Your task to perform on an android device: Open Chrome and go to the settings page Image 0: 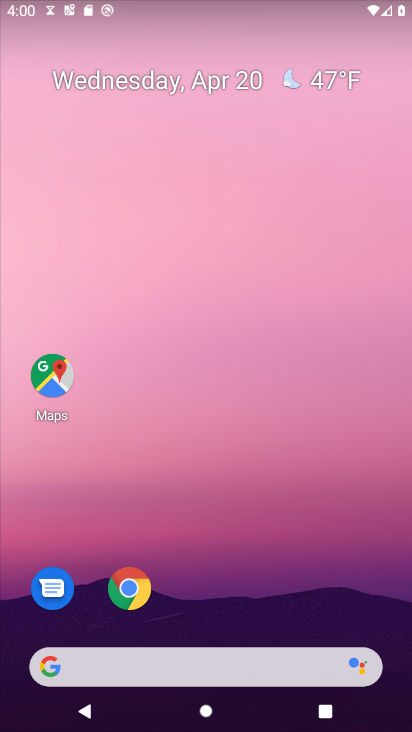
Step 0: click (135, 596)
Your task to perform on an android device: Open Chrome and go to the settings page Image 1: 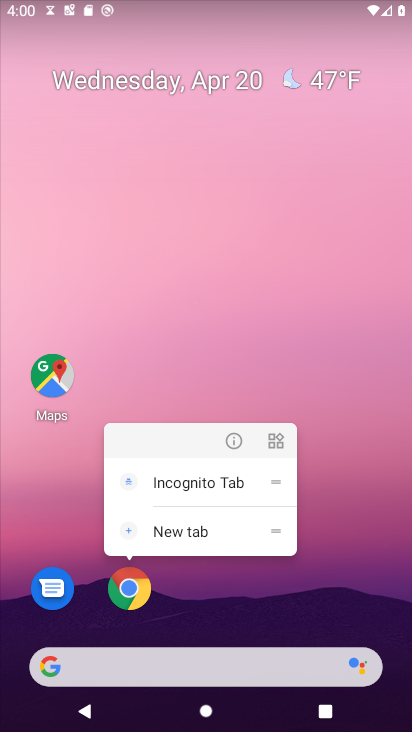
Step 1: click (135, 596)
Your task to perform on an android device: Open Chrome and go to the settings page Image 2: 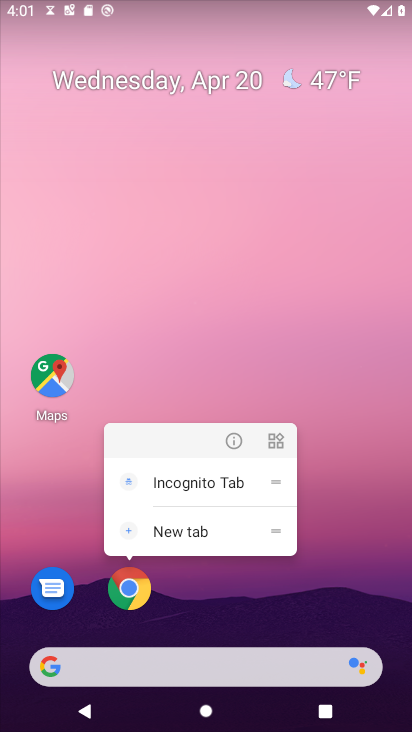
Step 2: click (135, 593)
Your task to perform on an android device: Open Chrome and go to the settings page Image 3: 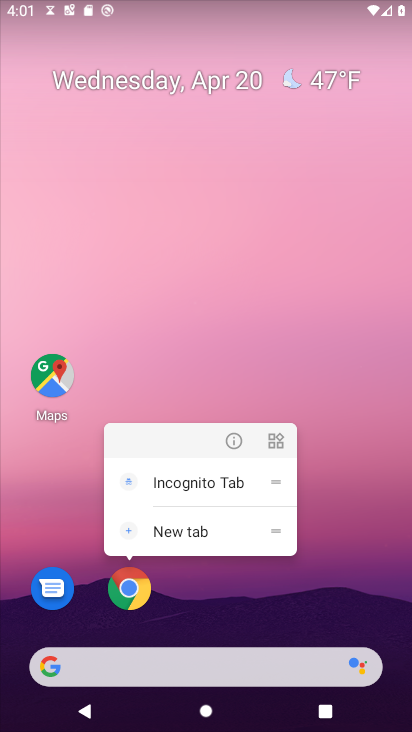
Step 3: click (135, 592)
Your task to perform on an android device: Open Chrome and go to the settings page Image 4: 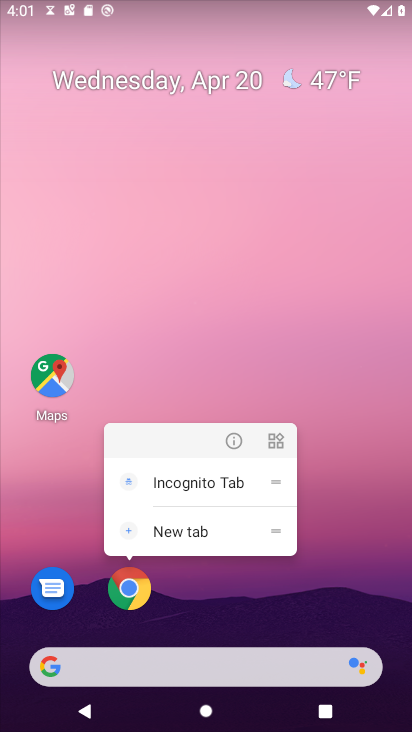
Step 4: click (135, 592)
Your task to perform on an android device: Open Chrome and go to the settings page Image 5: 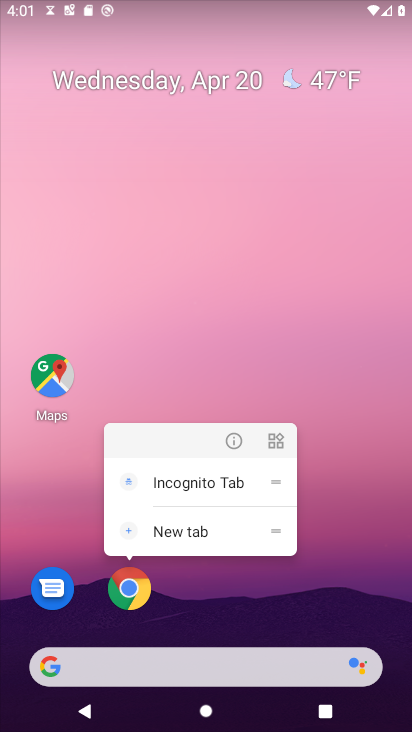
Step 5: click (135, 592)
Your task to perform on an android device: Open Chrome and go to the settings page Image 6: 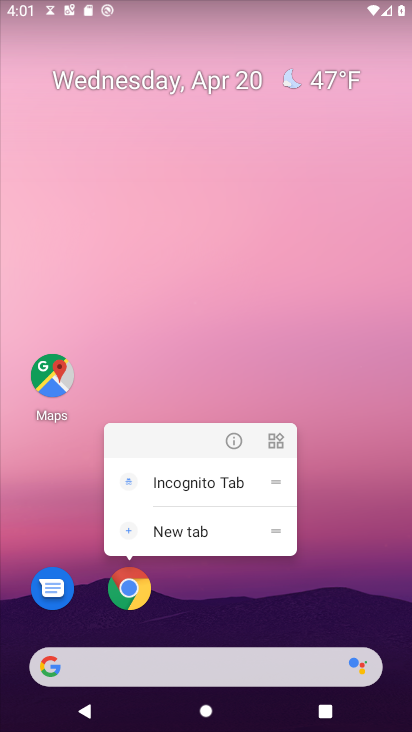
Step 6: click (135, 590)
Your task to perform on an android device: Open Chrome and go to the settings page Image 7: 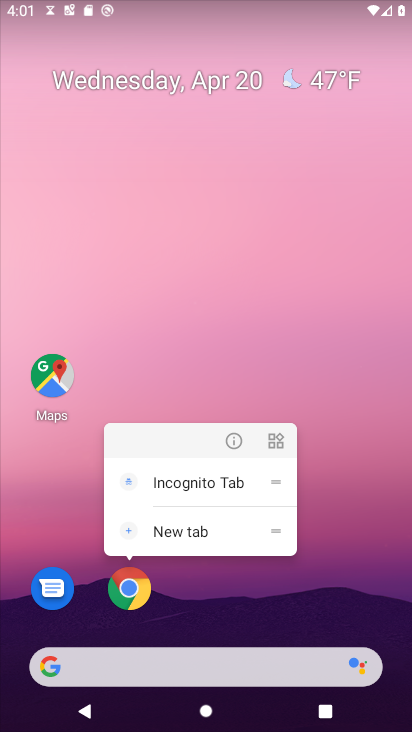
Step 7: click (135, 589)
Your task to perform on an android device: Open Chrome and go to the settings page Image 8: 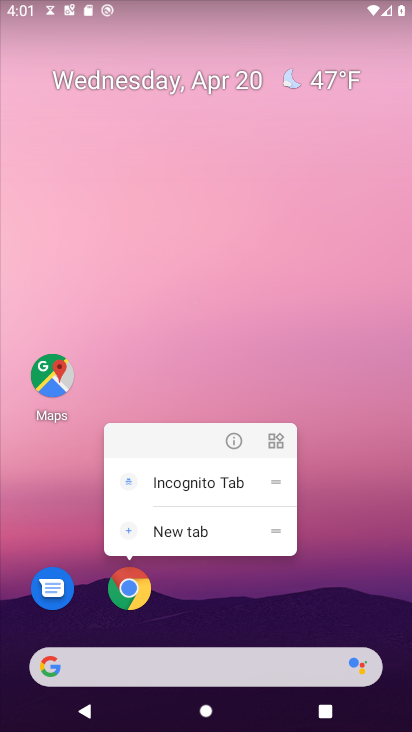
Step 8: click (135, 589)
Your task to perform on an android device: Open Chrome and go to the settings page Image 9: 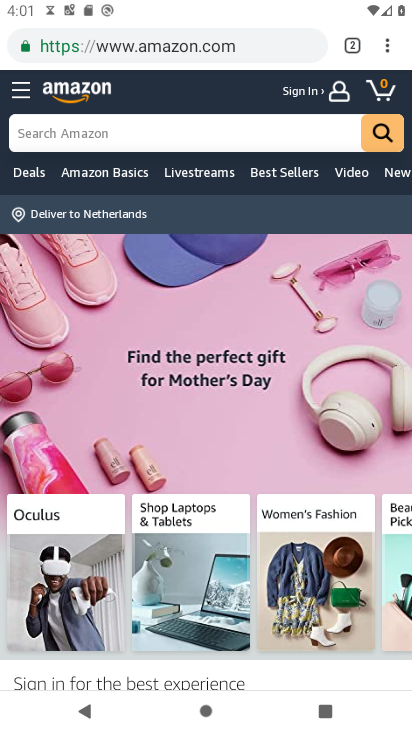
Step 9: click (383, 48)
Your task to perform on an android device: Open Chrome and go to the settings page Image 10: 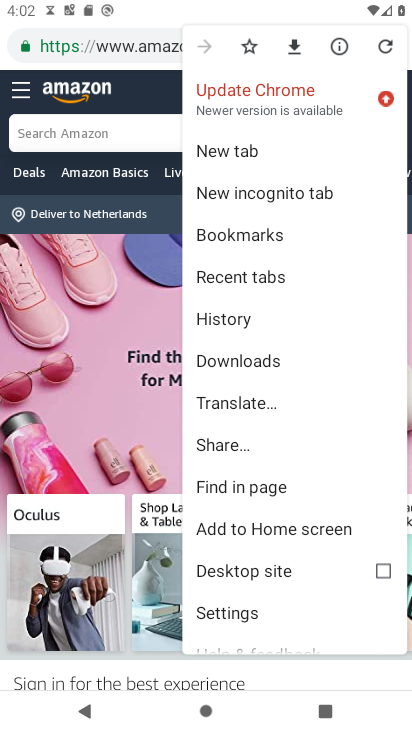
Step 10: click (193, 611)
Your task to perform on an android device: Open Chrome and go to the settings page Image 11: 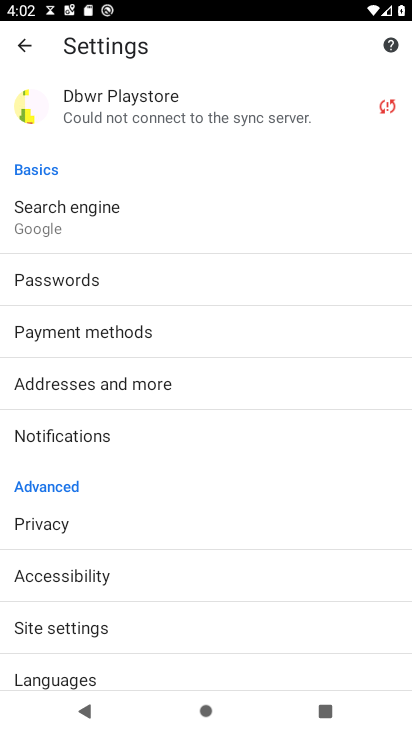
Step 11: task complete